Your task to perform on an android device: toggle show notifications on the lock screen Image 0: 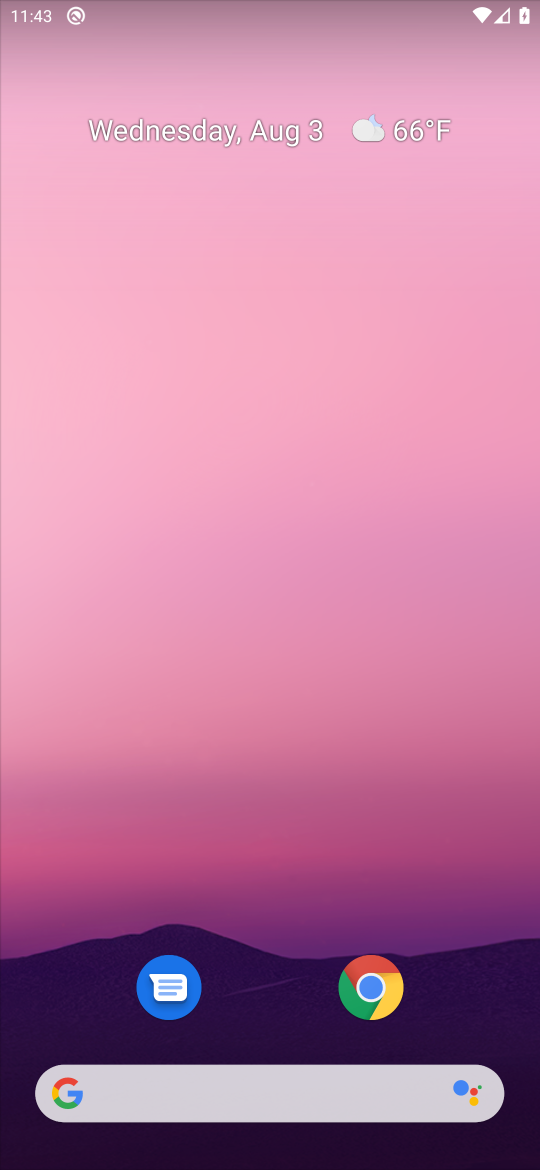
Step 0: drag from (187, 1051) to (2, 158)
Your task to perform on an android device: toggle show notifications on the lock screen Image 1: 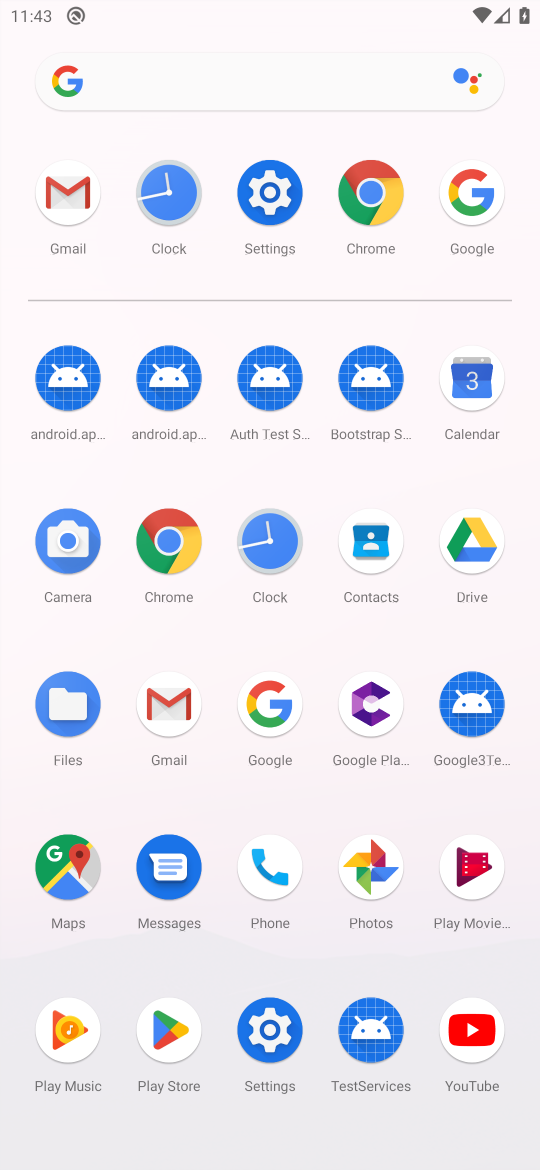
Step 1: click (255, 195)
Your task to perform on an android device: toggle show notifications on the lock screen Image 2: 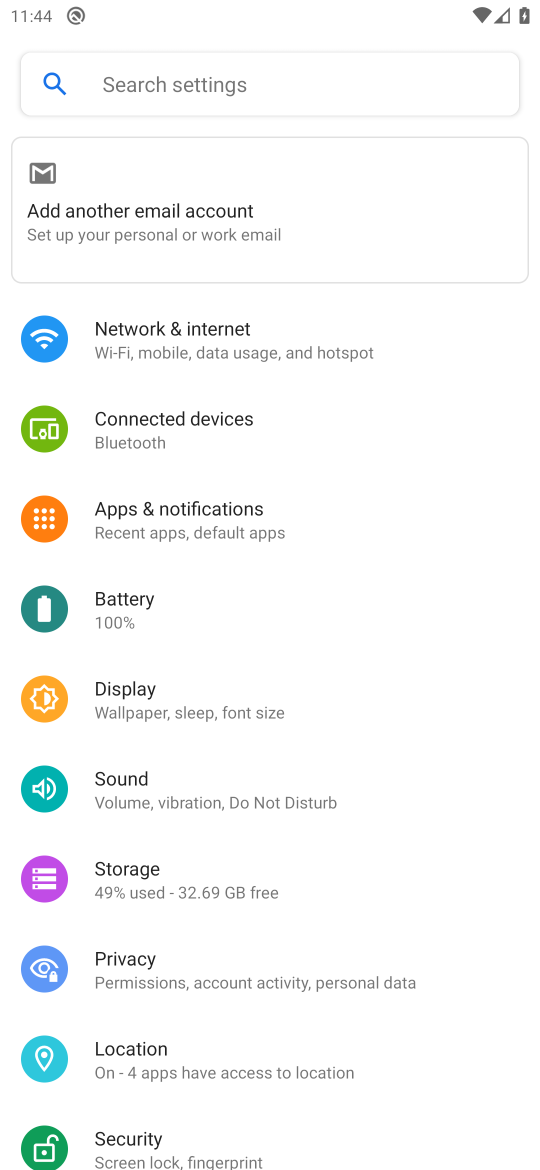
Step 2: click (142, 975)
Your task to perform on an android device: toggle show notifications on the lock screen Image 3: 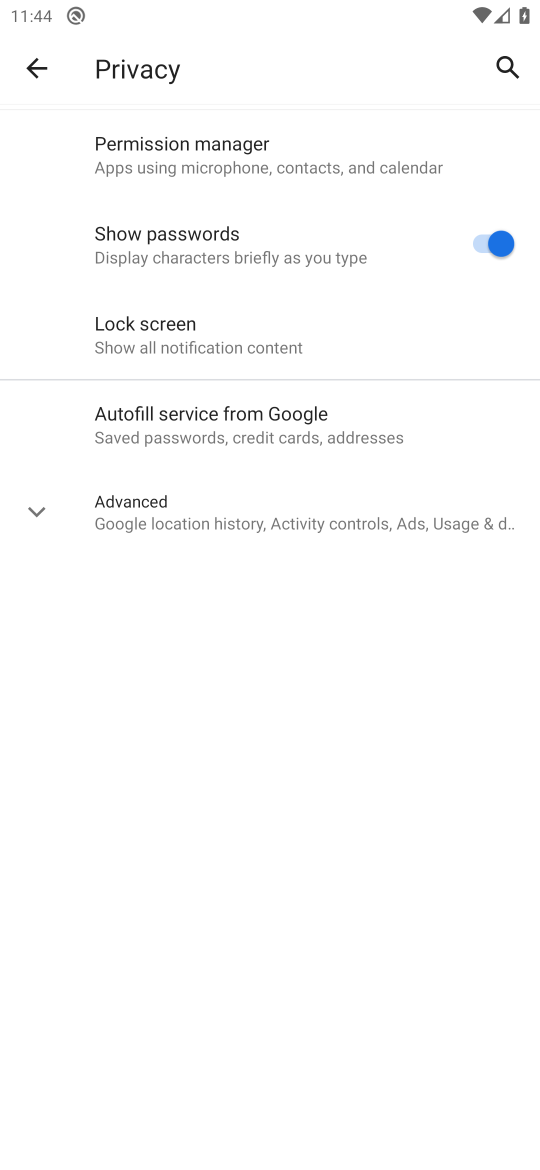
Step 3: click (115, 339)
Your task to perform on an android device: toggle show notifications on the lock screen Image 4: 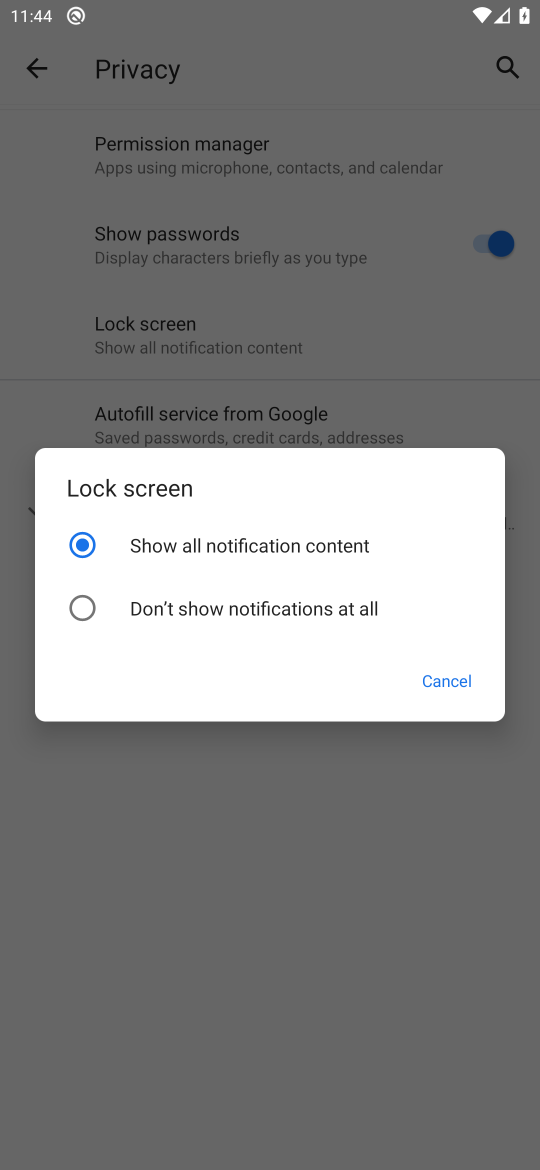
Step 4: click (202, 614)
Your task to perform on an android device: toggle show notifications on the lock screen Image 5: 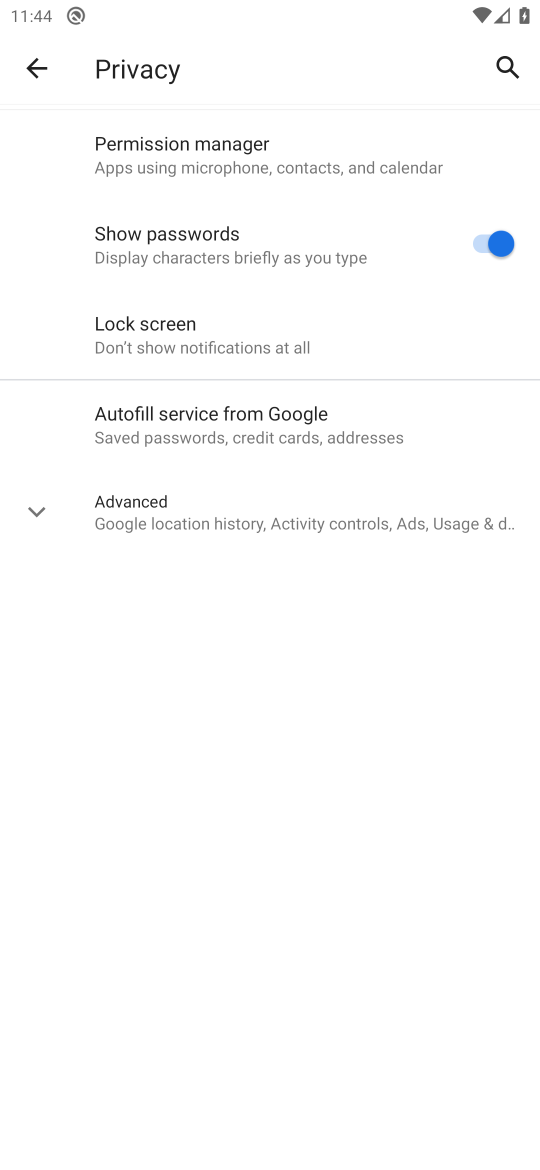
Step 5: task complete